Your task to perform on an android device: Search for 24"x36" picture frame on Home Depot. Image 0: 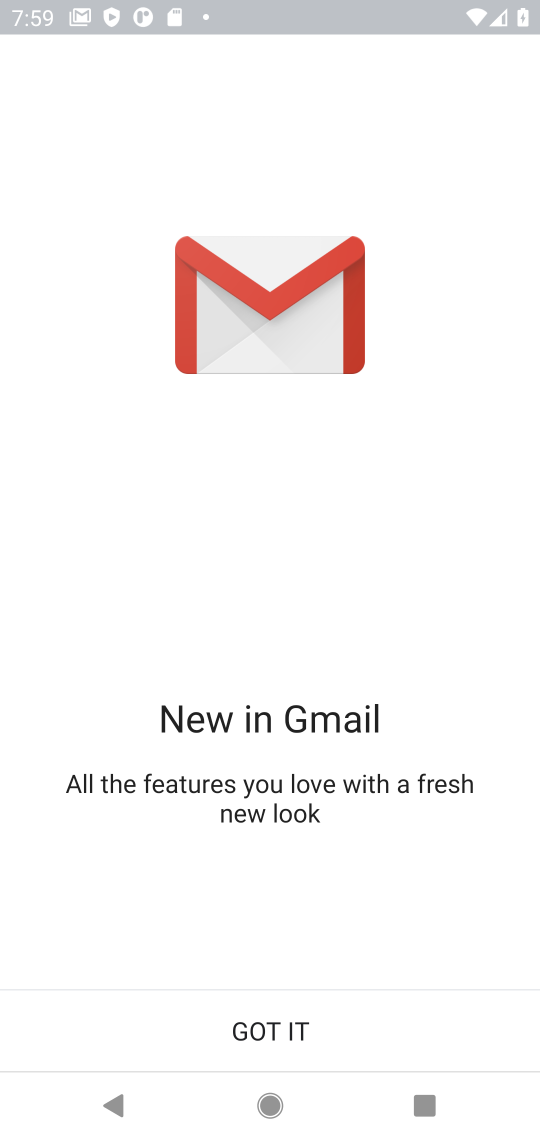
Step 0: press home button
Your task to perform on an android device: Search for 24"x36" picture frame on Home Depot. Image 1: 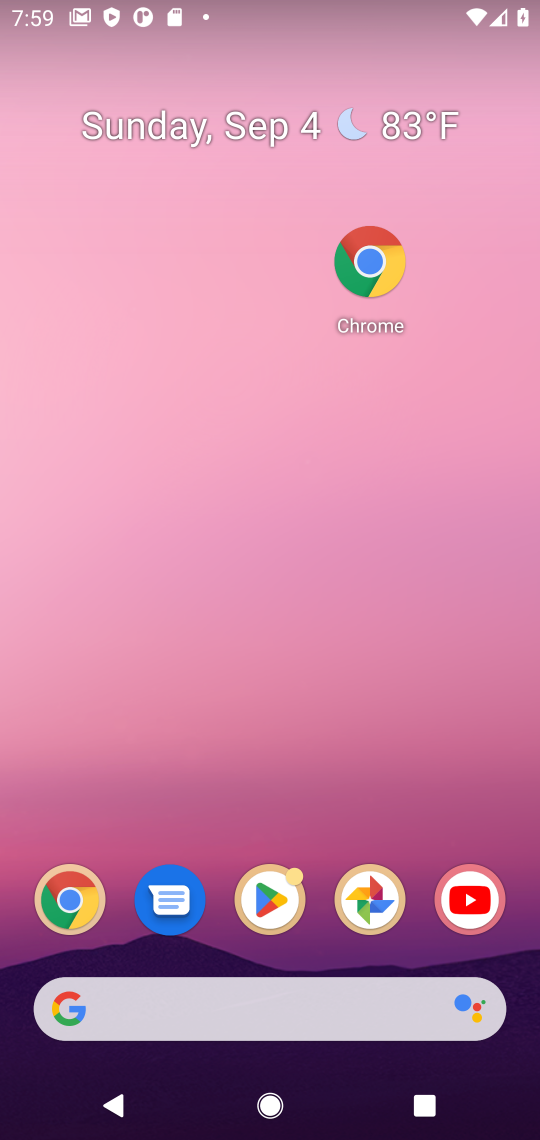
Step 1: click (386, 262)
Your task to perform on an android device: Search for 24"x36" picture frame on Home Depot. Image 2: 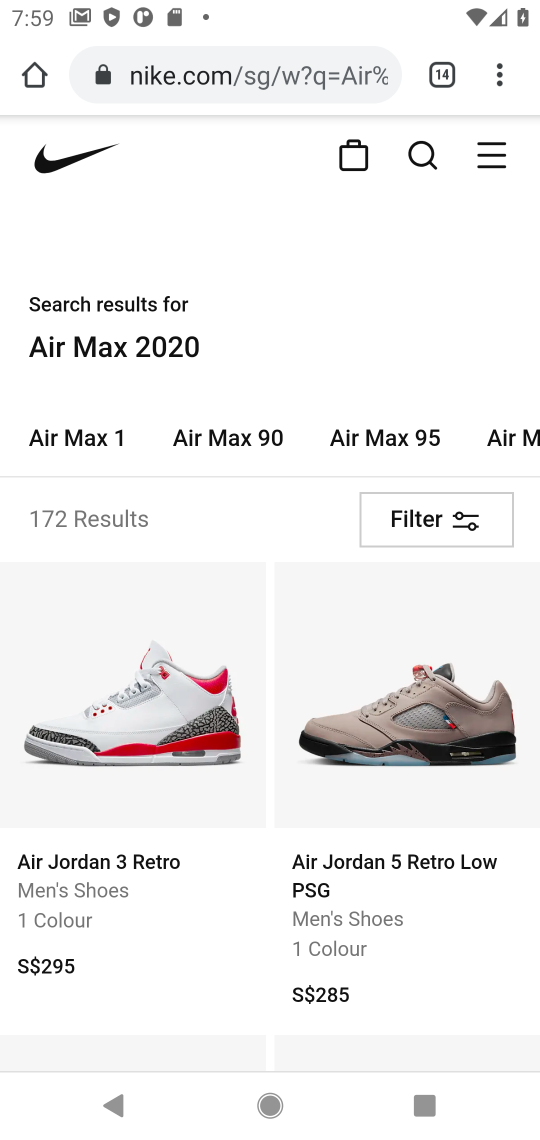
Step 2: click (443, 93)
Your task to perform on an android device: Search for 24"x36" picture frame on Home Depot. Image 3: 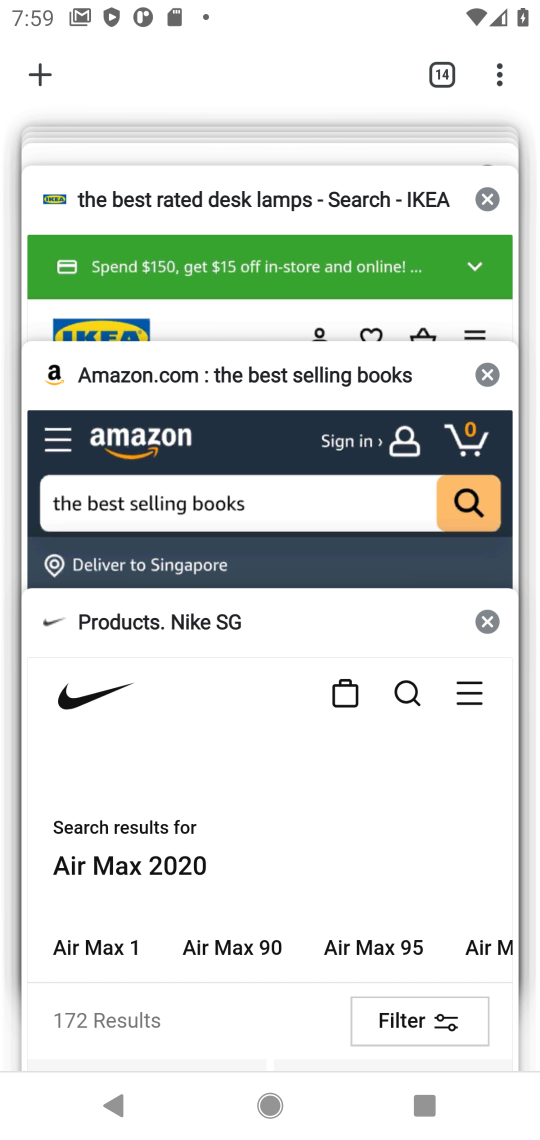
Step 3: click (32, 79)
Your task to perform on an android device: Search for 24"x36" picture frame on Home Depot. Image 4: 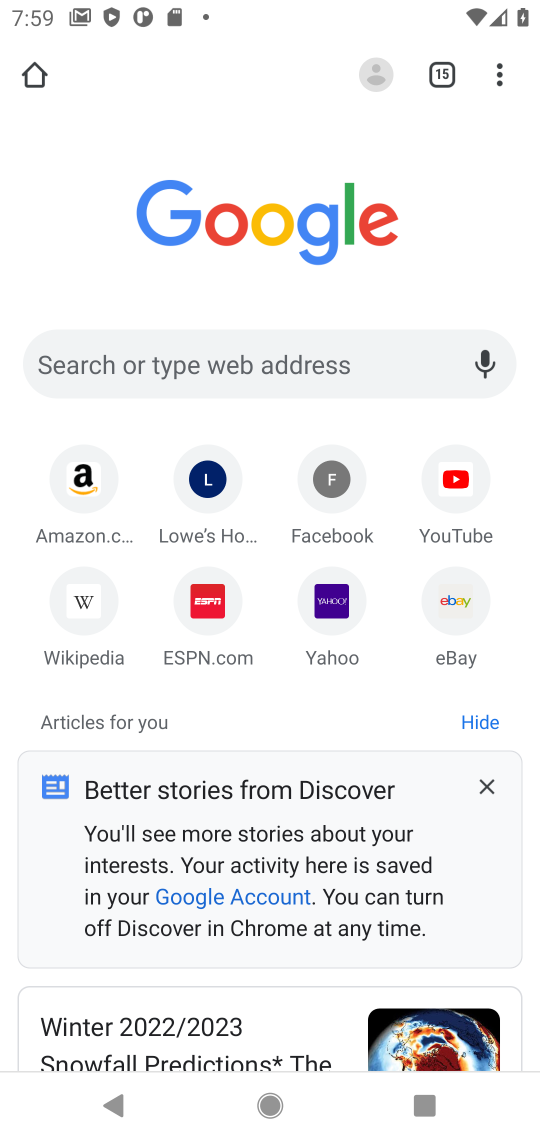
Step 4: click (266, 369)
Your task to perform on an android device: Search for 24"x36" picture frame on Home Depot. Image 5: 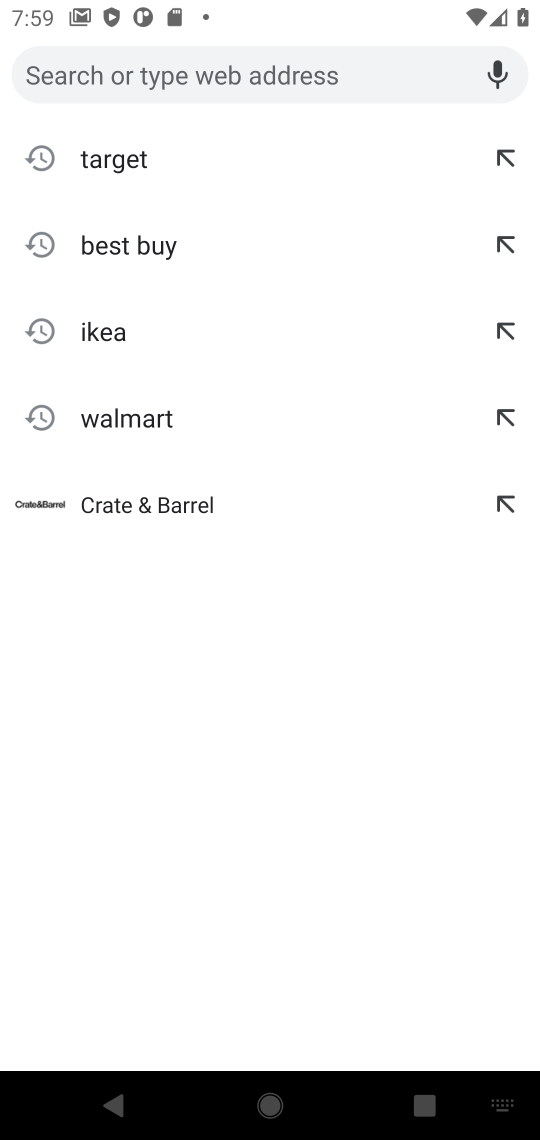
Step 5: type "home depot"
Your task to perform on an android device: Search for 24"x36" picture frame on Home Depot. Image 6: 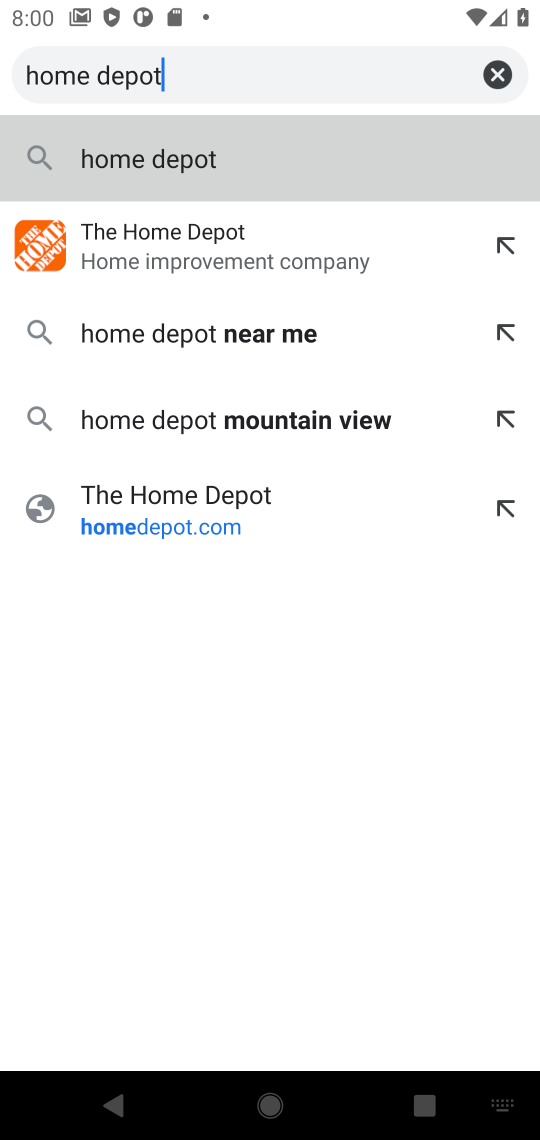
Step 6: click (324, 172)
Your task to perform on an android device: Search for 24"x36" picture frame on Home Depot. Image 7: 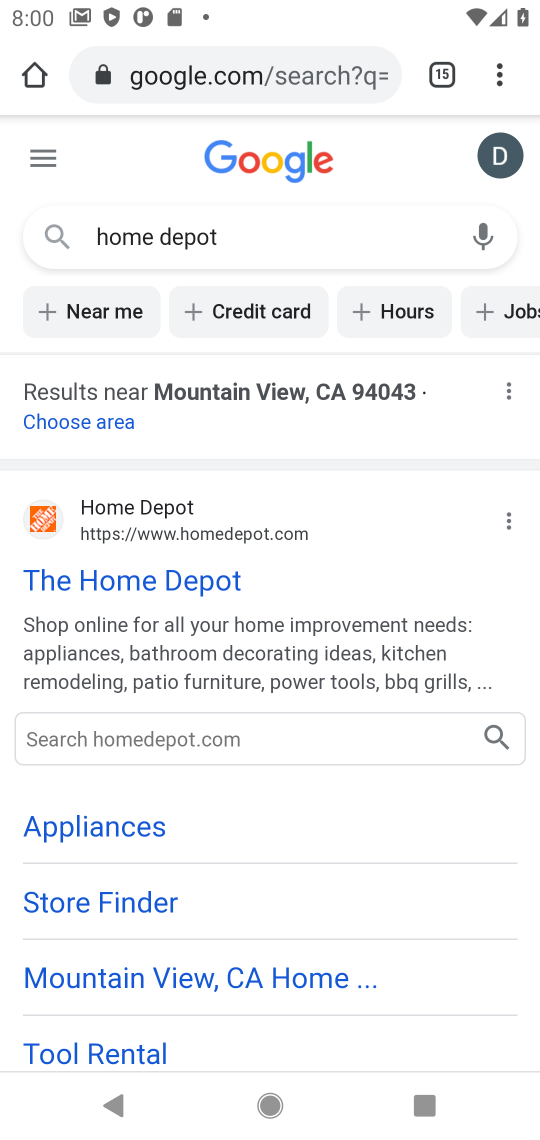
Step 7: click (106, 588)
Your task to perform on an android device: Search for 24"x36" picture frame on Home Depot. Image 8: 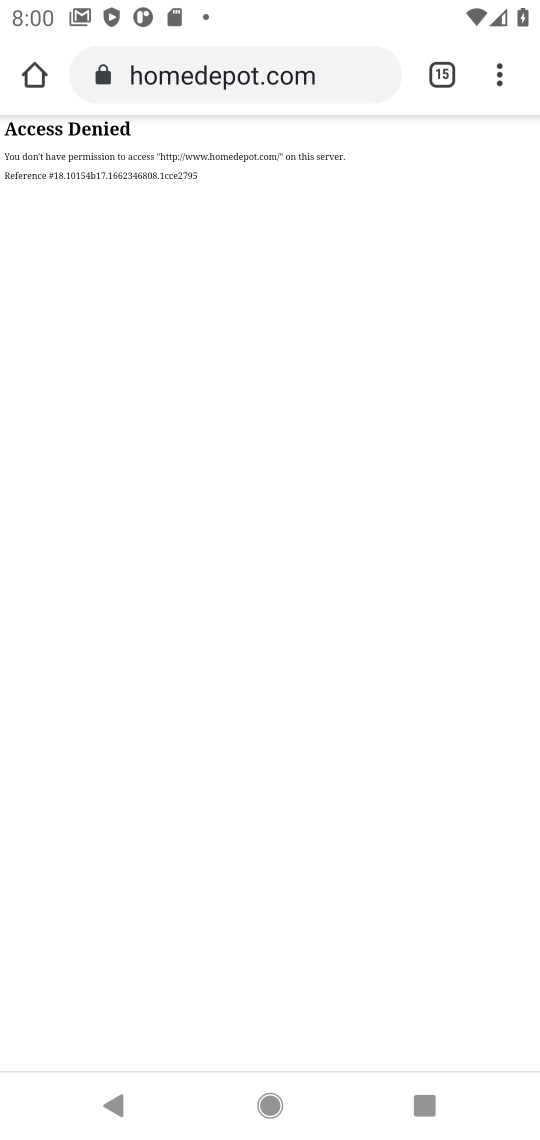
Step 8: click (499, 70)
Your task to perform on an android device: Search for 24"x36" picture frame on Home Depot. Image 9: 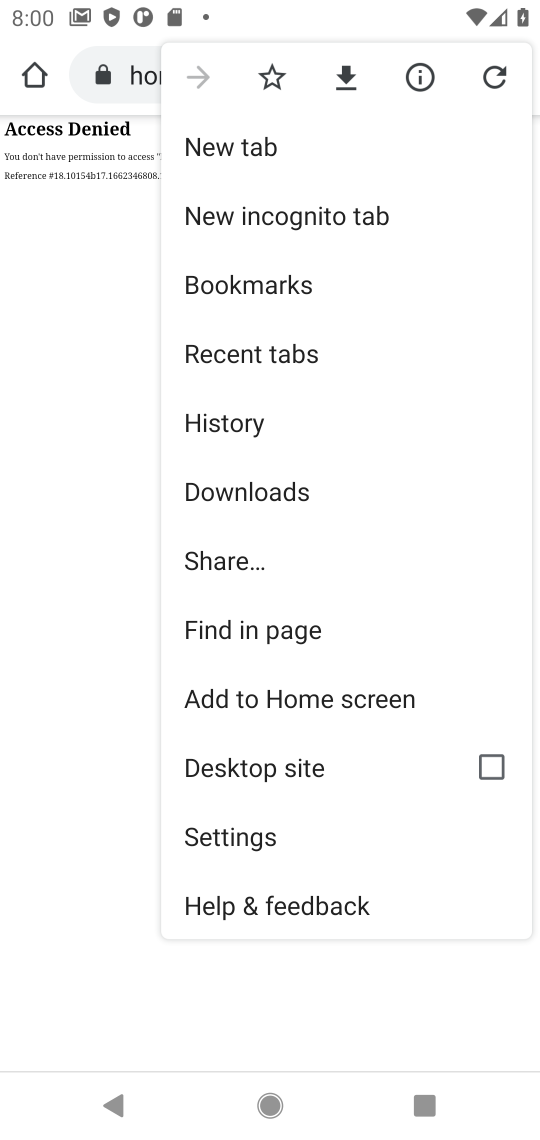
Step 9: click (499, 70)
Your task to perform on an android device: Search for 24"x36" picture frame on Home Depot. Image 10: 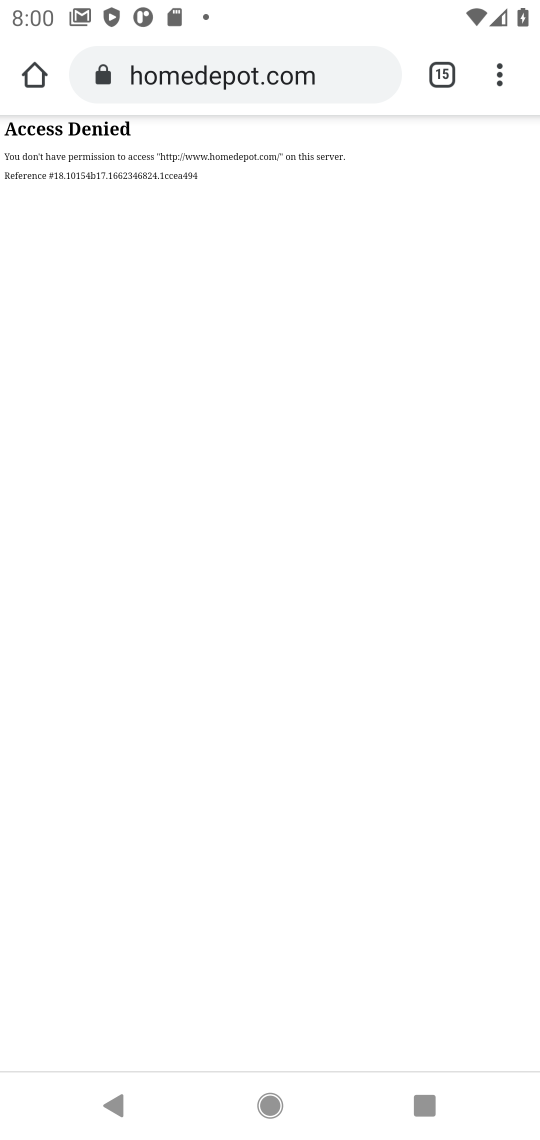
Step 10: task complete